Your task to perform on an android device: turn pop-ups off in chrome Image 0: 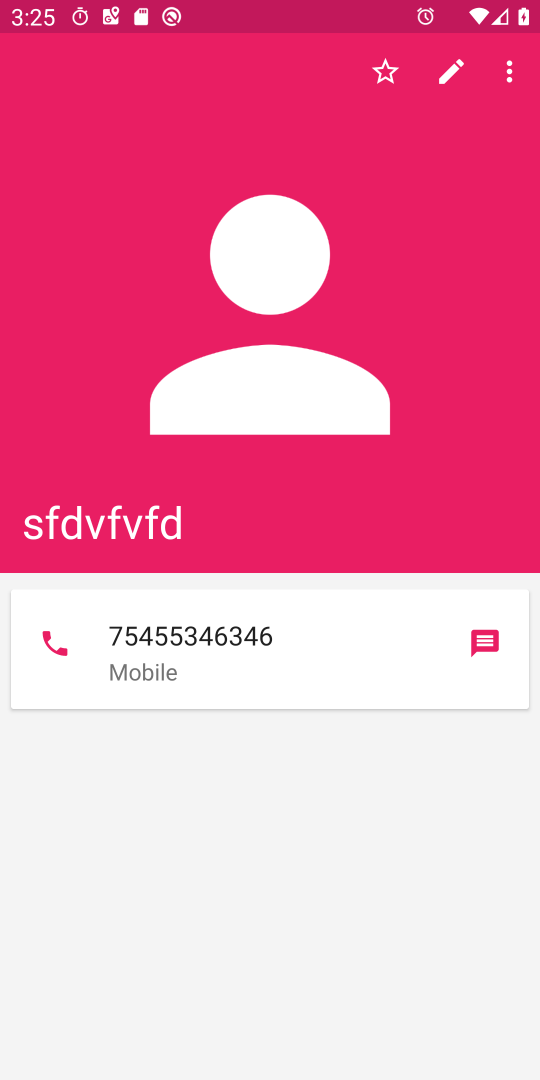
Step 0: press home button
Your task to perform on an android device: turn pop-ups off in chrome Image 1: 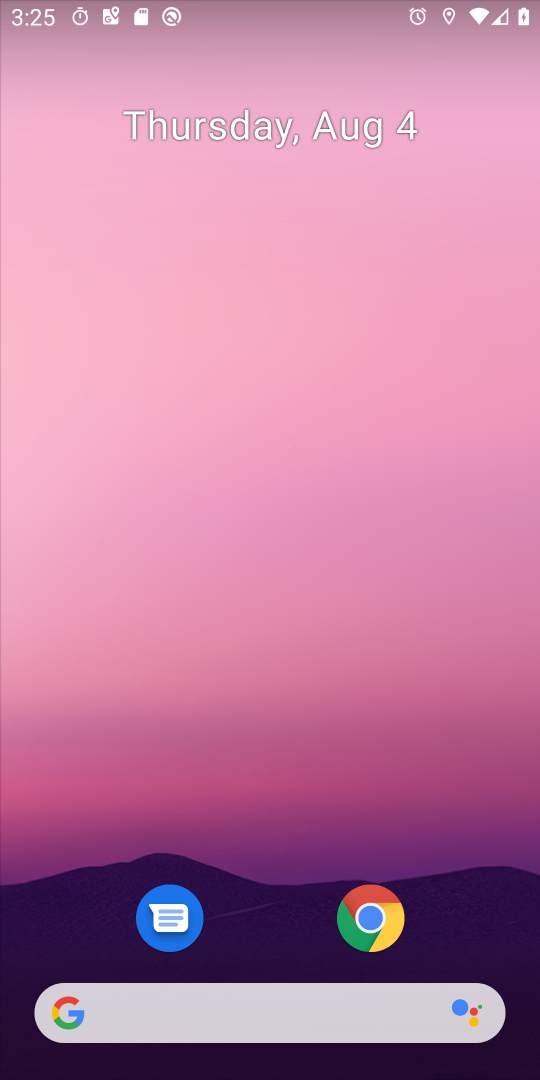
Step 1: click (382, 930)
Your task to perform on an android device: turn pop-ups off in chrome Image 2: 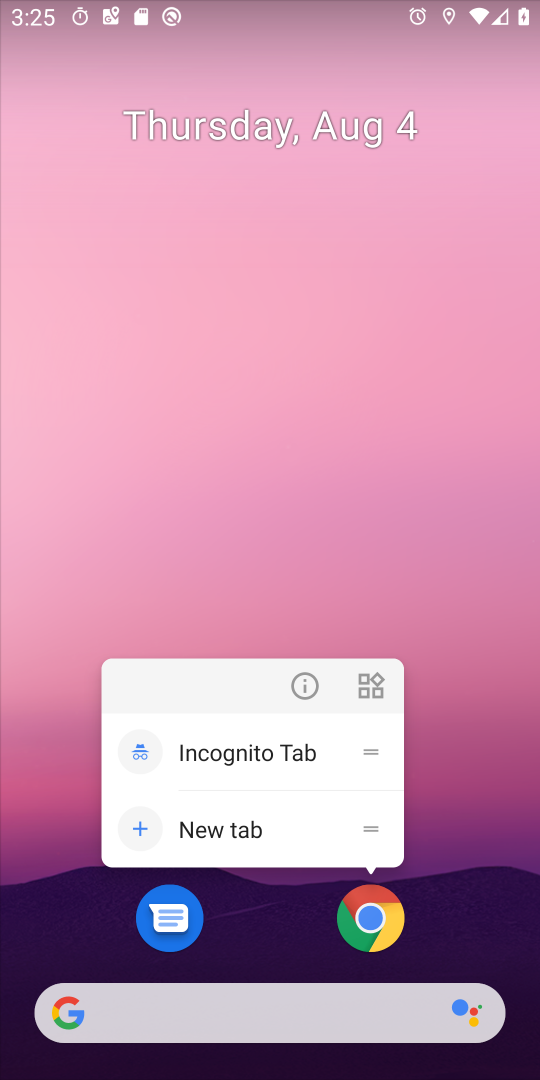
Step 2: click (382, 918)
Your task to perform on an android device: turn pop-ups off in chrome Image 3: 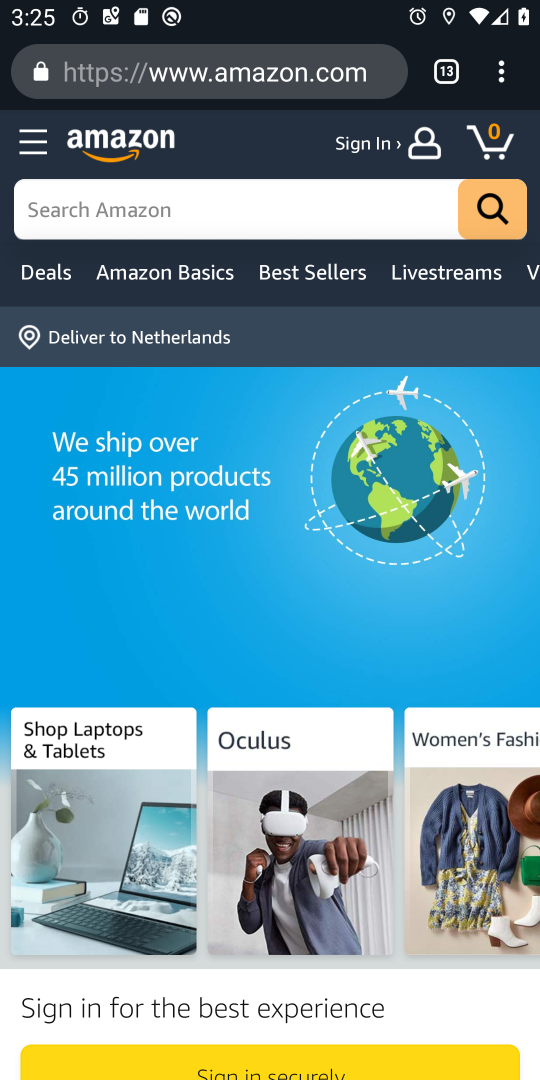
Step 3: click (497, 59)
Your task to perform on an android device: turn pop-ups off in chrome Image 4: 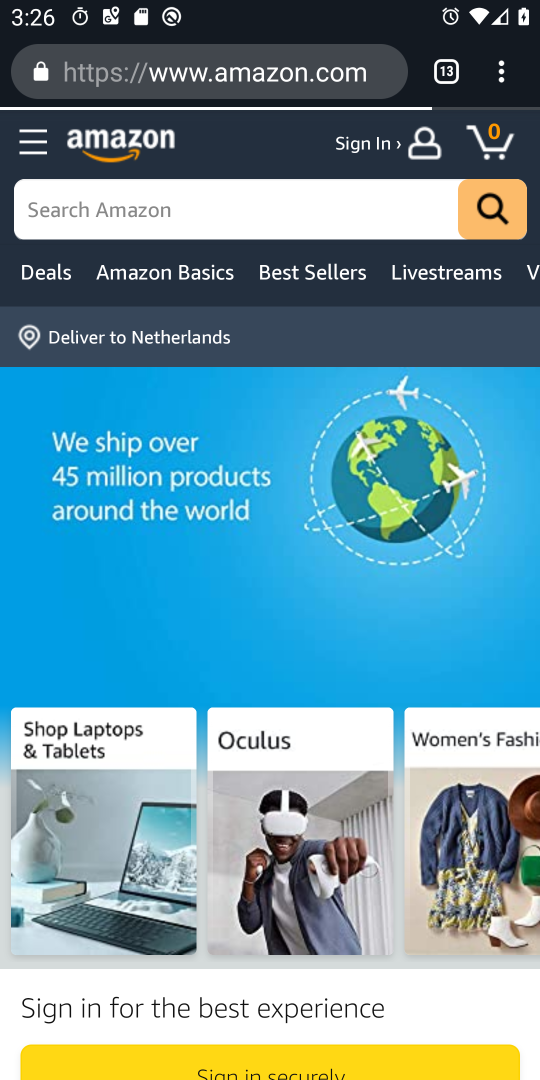
Step 4: drag from (496, 71) to (285, 834)
Your task to perform on an android device: turn pop-ups off in chrome Image 5: 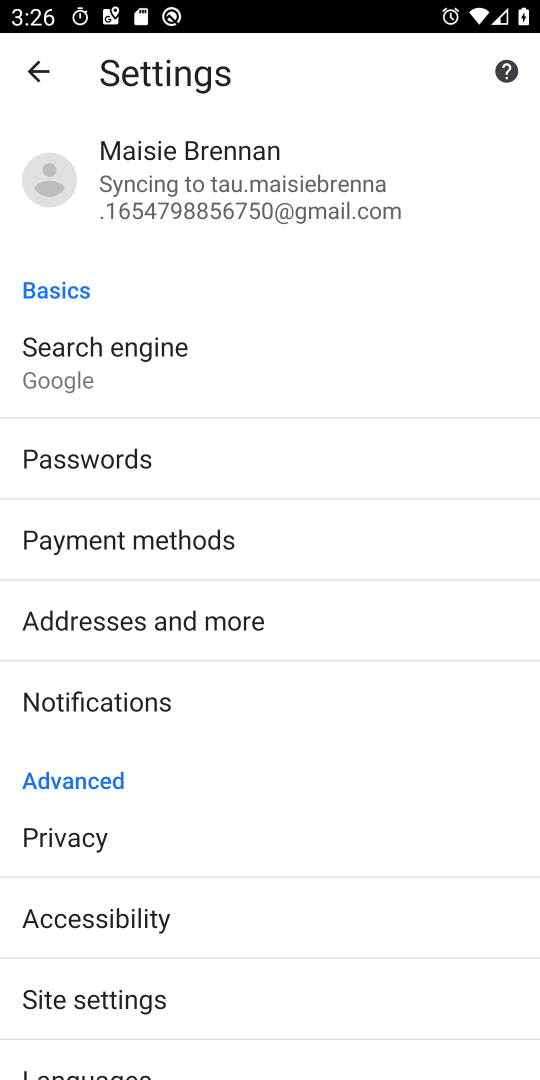
Step 5: click (219, 994)
Your task to perform on an android device: turn pop-ups off in chrome Image 6: 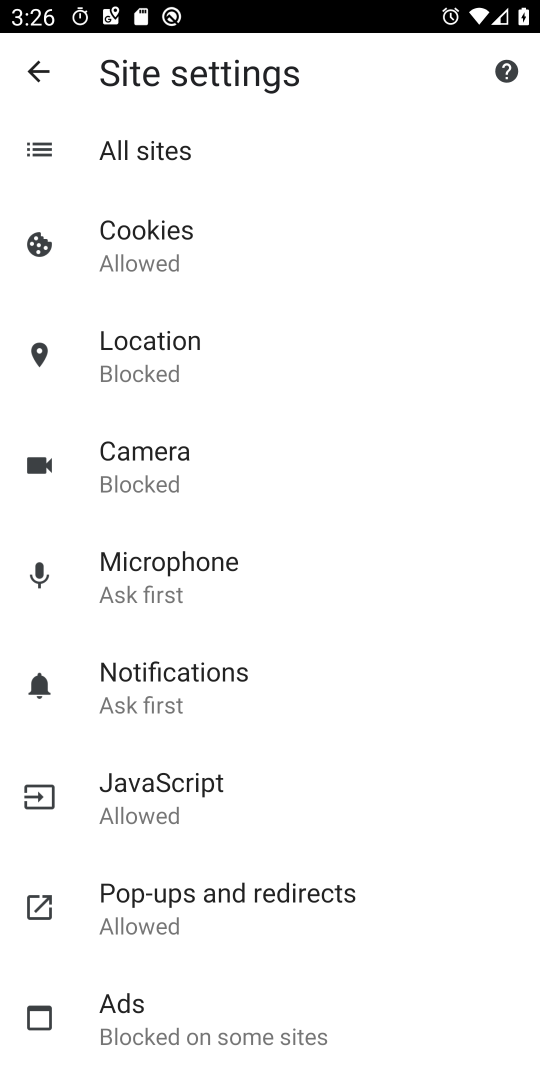
Step 6: click (242, 871)
Your task to perform on an android device: turn pop-ups off in chrome Image 7: 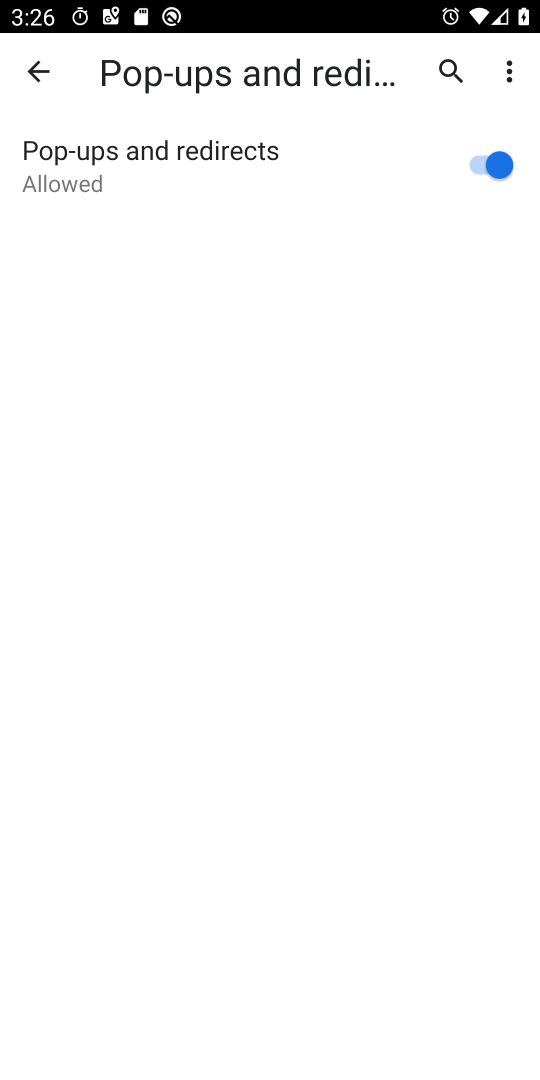
Step 7: click (487, 156)
Your task to perform on an android device: turn pop-ups off in chrome Image 8: 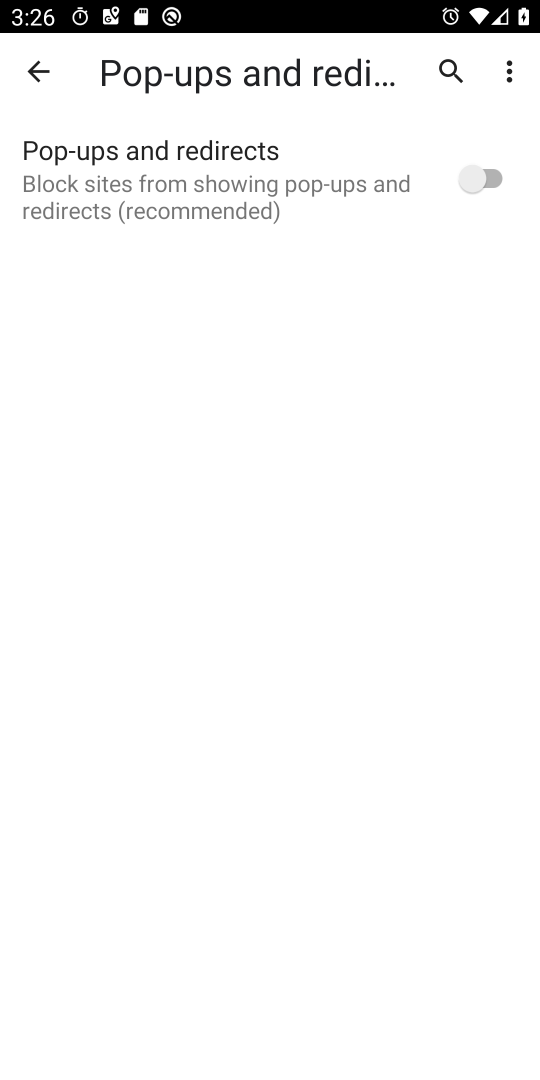
Step 8: task complete